Your task to perform on an android device: turn on wifi Image 0: 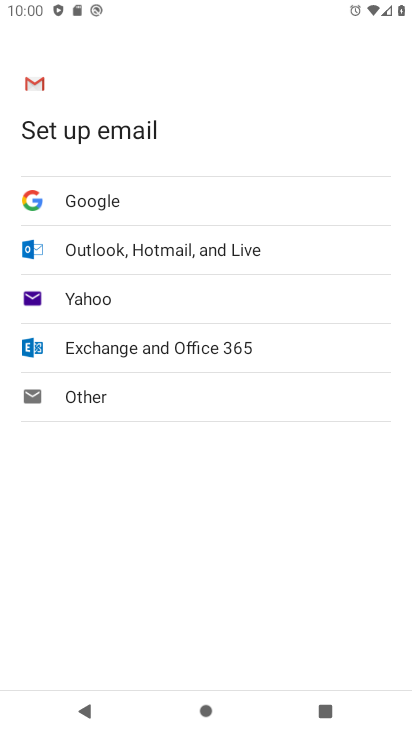
Step 0: press back button
Your task to perform on an android device: turn on wifi Image 1: 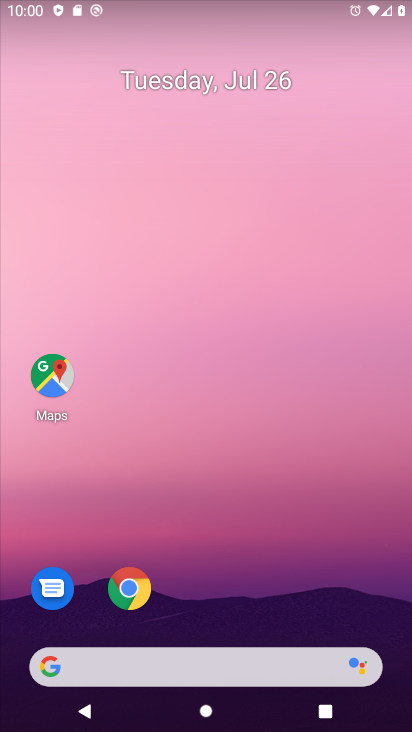
Step 1: task complete